Your task to perform on an android device: stop showing notifications on the lock screen Image 0: 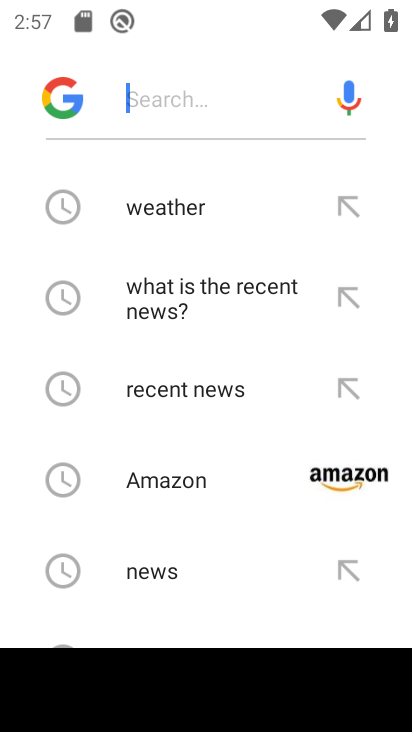
Step 0: press home button
Your task to perform on an android device: stop showing notifications on the lock screen Image 1: 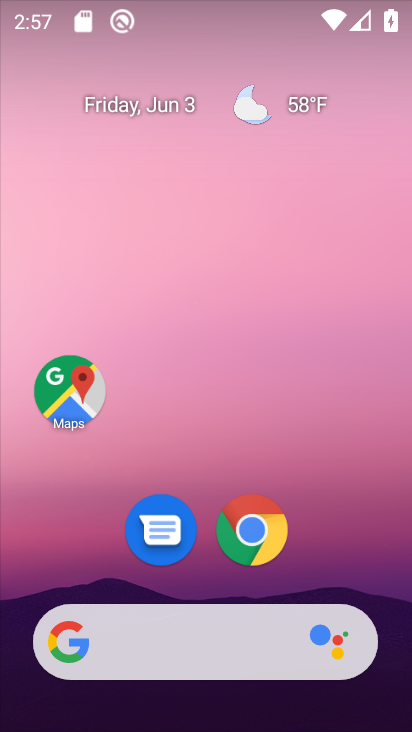
Step 1: drag from (168, 625) to (249, 183)
Your task to perform on an android device: stop showing notifications on the lock screen Image 2: 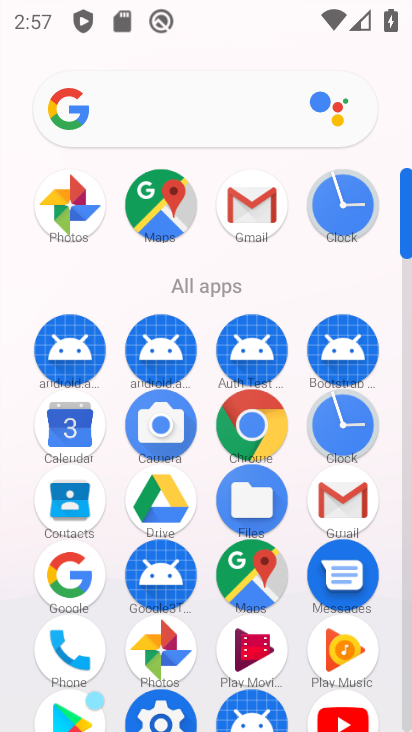
Step 2: drag from (215, 598) to (283, 325)
Your task to perform on an android device: stop showing notifications on the lock screen Image 3: 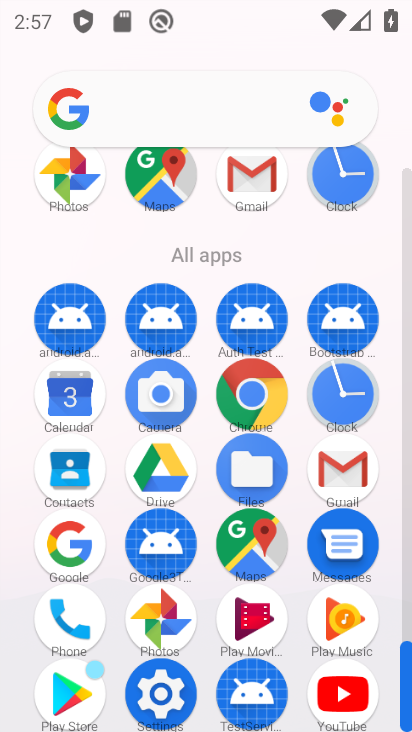
Step 3: click (155, 687)
Your task to perform on an android device: stop showing notifications on the lock screen Image 4: 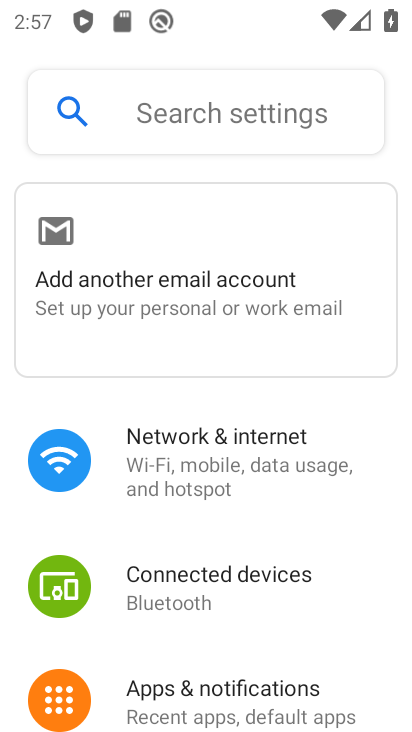
Step 4: drag from (246, 696) to (341, 360)
Your task to perform on an android device: stop showing notifications on the lock screen Image 5: 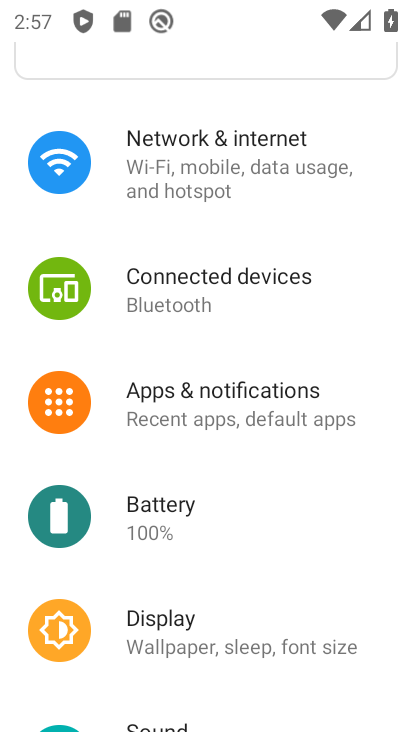
Step 5: drag from (188, 640) to (410, 402)
Your task to perform on an android device: stop showing notifications on the lock screen Image 6: 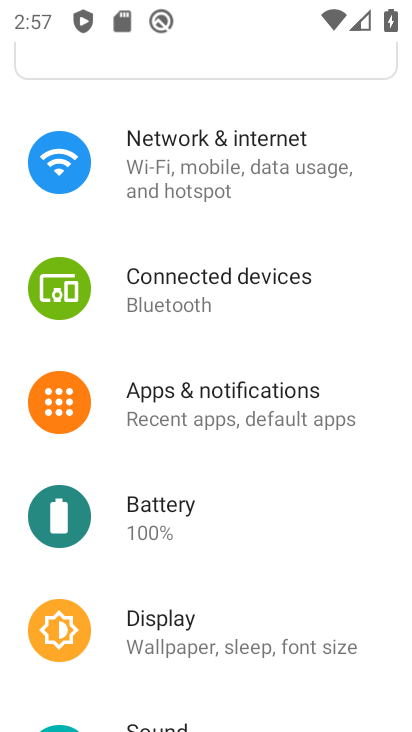
Step 6: click (228, 423)
Your task to perform on an android device: stop showing notifications on the lock screen Image 7: 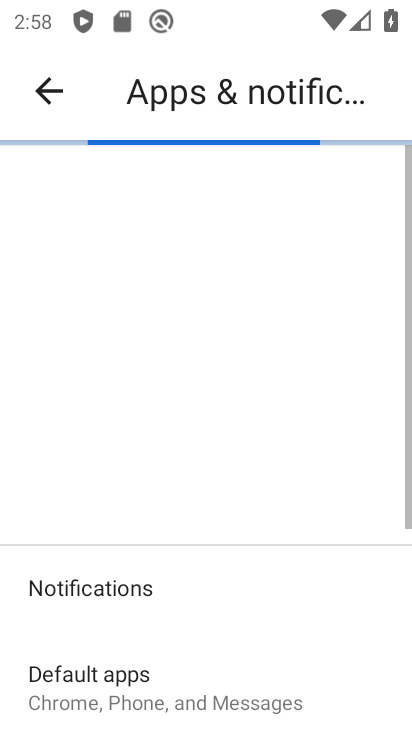
Step 7: drag from (193, 639) to (335, 220)
Your task to perform on an android device: stop showing notifications on the lock screen Image 8: 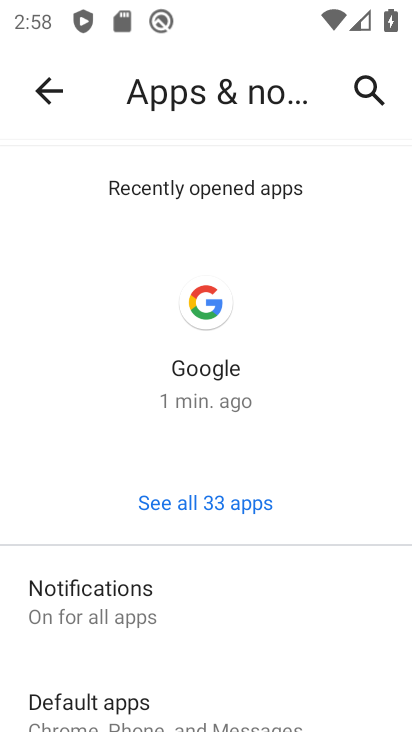
Step 8: drag from (300, 614) to (410, 145)
Your task to perform on an android device: stop showing notifications on the lock screen Image 9: 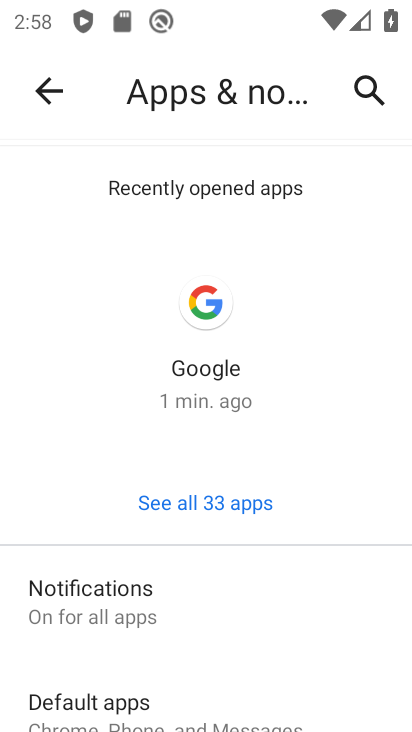
Step 9: drag from (183, 715) to (359, 244)
Your task to perform on an android device: stop showing notifications on the lock screen Image 10: 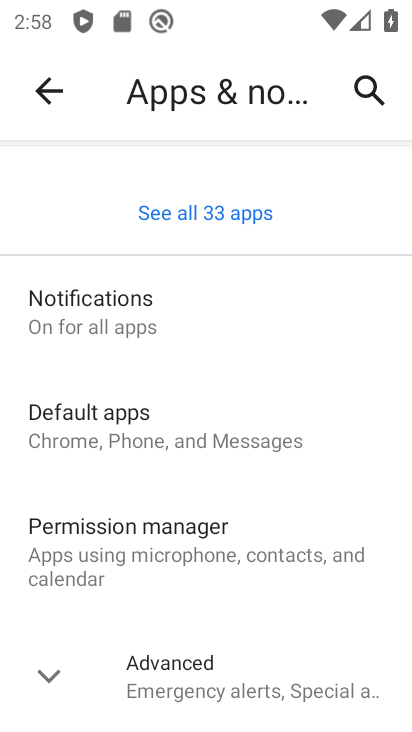
Step 10: click (157, 317)
Your task to perform on an android device: stop showing notifications on the lock screen Image 11: 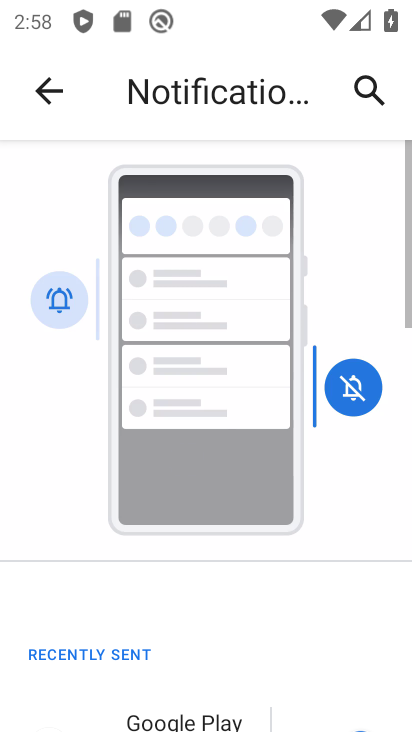
Step 11: drag from (176, 604) to (316, 206)
Your task to perform on an android device: stop showing notifications on the lock screen Image 12: 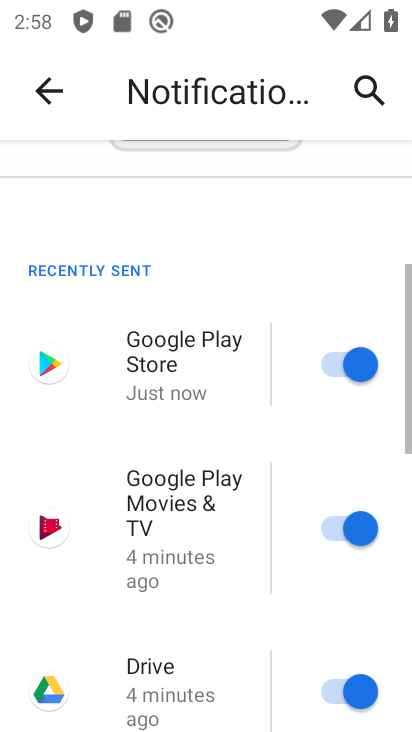
Step 12: drag from (203, 651) to (341, 233)
Your task to perform on an android device: stop showing notifications on the lock screen Image 13: 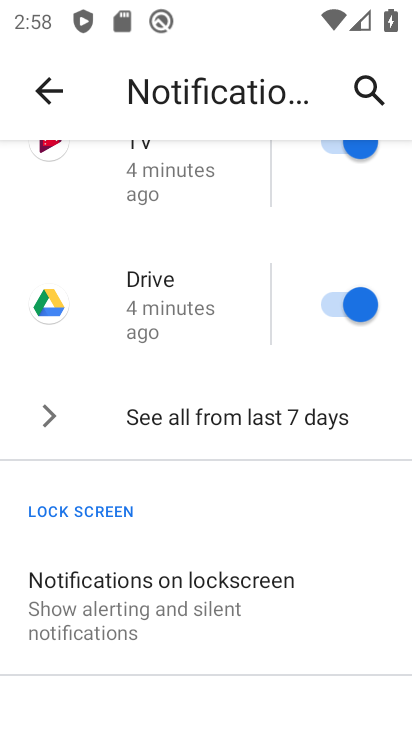
Step 13: click (234, 611)
Your task to perform on an android device: stop showing notifications on the lock screen Image 14: 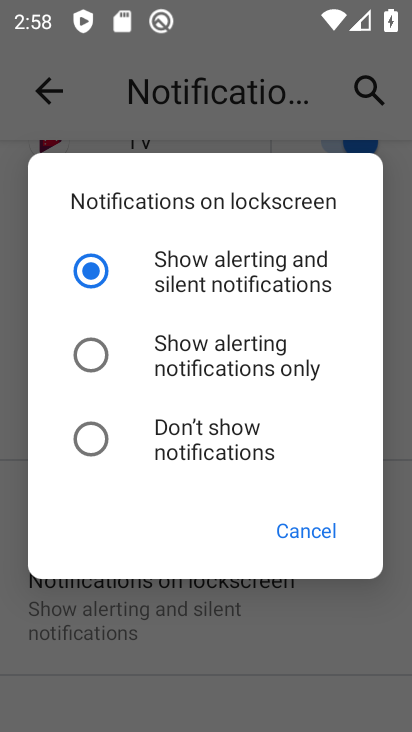
Step 14: drag from (235, 442) to (328, 283)
Your task to perform on an android device: stop showing notifications on the lock screen Image 15: 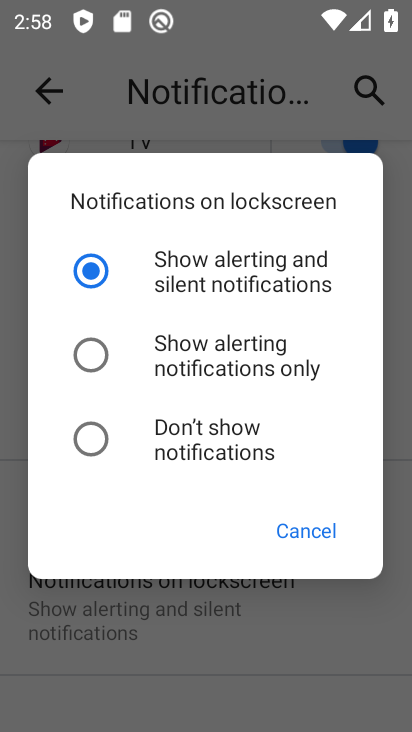
Step 15: click (223, 459)
Your task to perform on an android device: stop showing notifications on the lock screen Image 16: 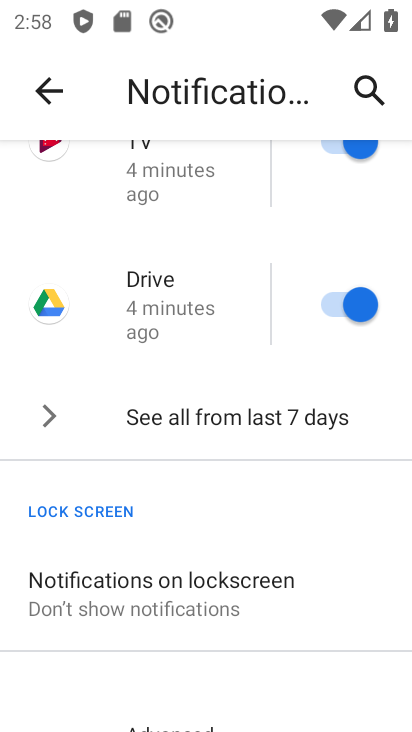
Step 16: task complete